Your task to perform on an android device: Open ESPN.com Image 0: 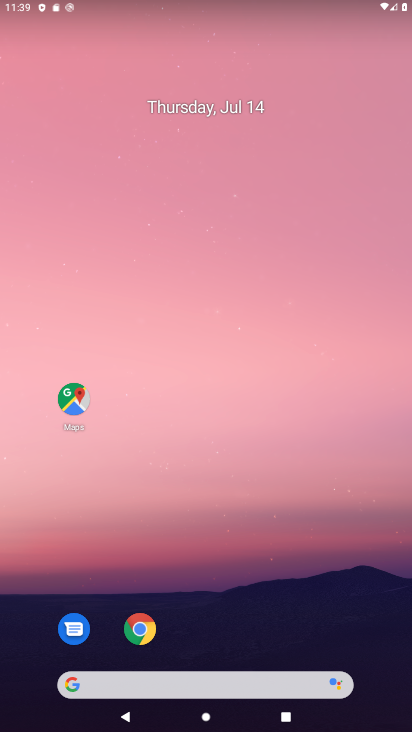
Step 0: click (198, 131)
Your task to perform on an android device: Open ESPN.com Image 1: 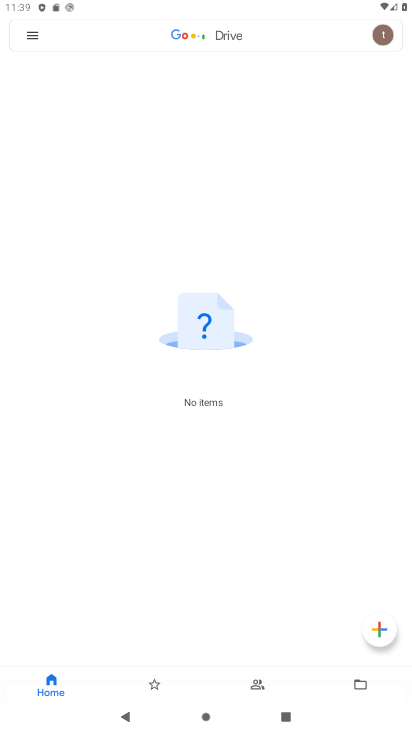
Step 1: press home button
Your task to perform on an android device: Open ESPN.com Image 2: 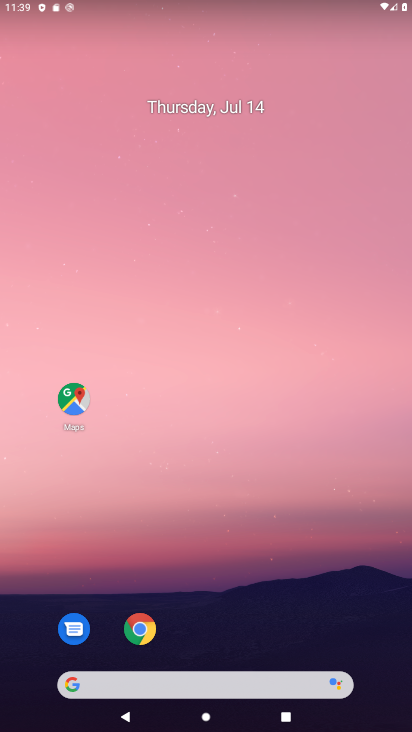
Step 2: drag from (211, 625) to (185, 115)
Your task to perform on an android device: Open ESPN.com Image 3: 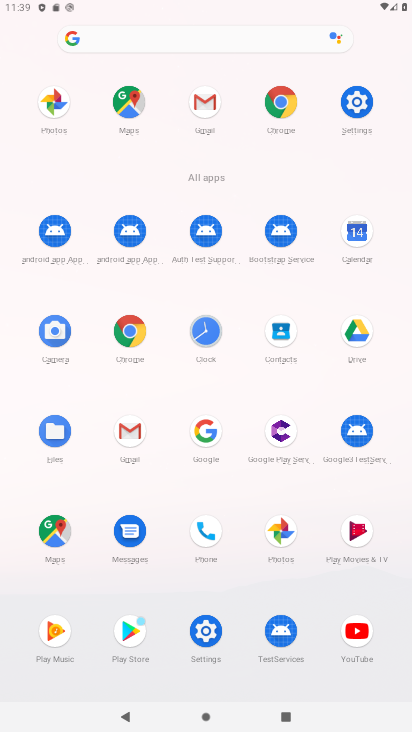
Step 3: click (277, 106)
Your task to perform on an android device: Open ESPN.com Image 4: 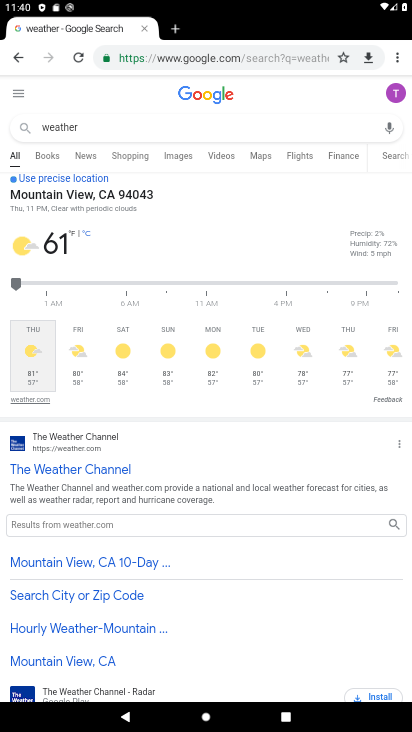
Step 4: click (171, 51)
Your task to perform on an android device: Open ESPN.com Image 5: 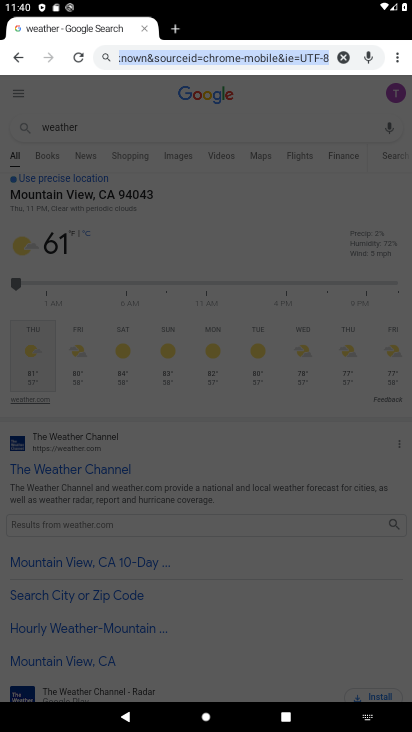
Step 5: type "espn.com"
Your task to perform on an android device: Open ESPN.com Image 6: 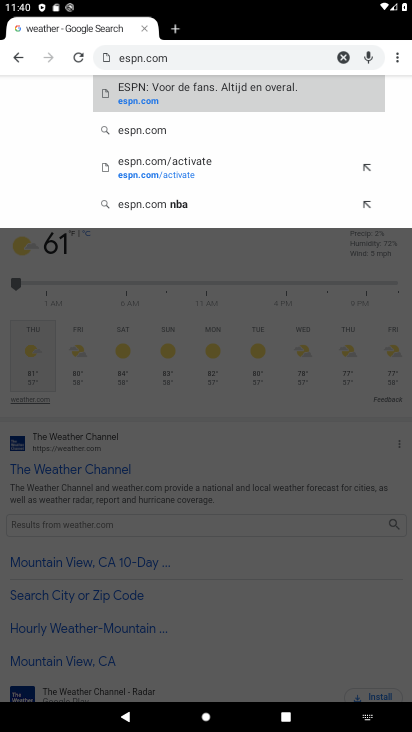
Step 6: click (125, 98)
Your task to perform on an android device: Open ESPN.com Image 7: 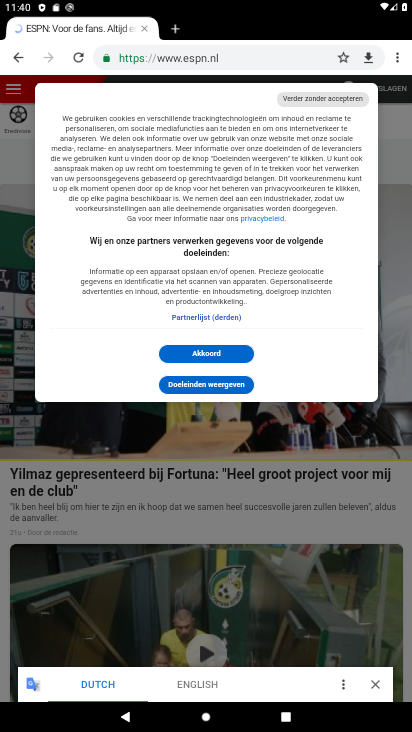
Step 7: task complete